Your task to perform on an android device: Open maps Image 0: 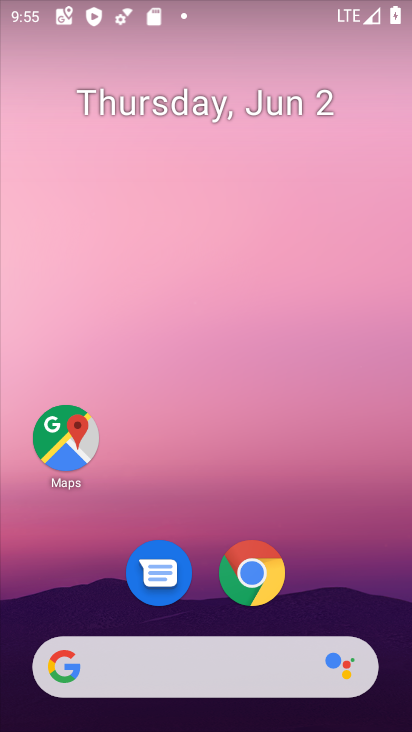
Step 0: click (77, 428)
Your task to perform on an android device: Open maps Image 1: 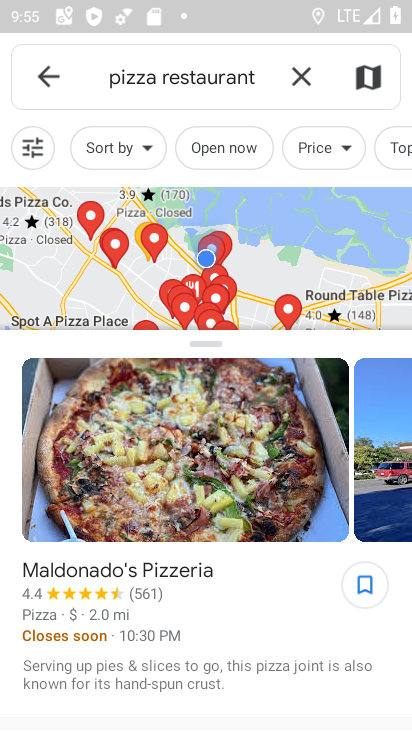
Step 1: task complete